Your task to perform on an android device: change the clock style Image 0: 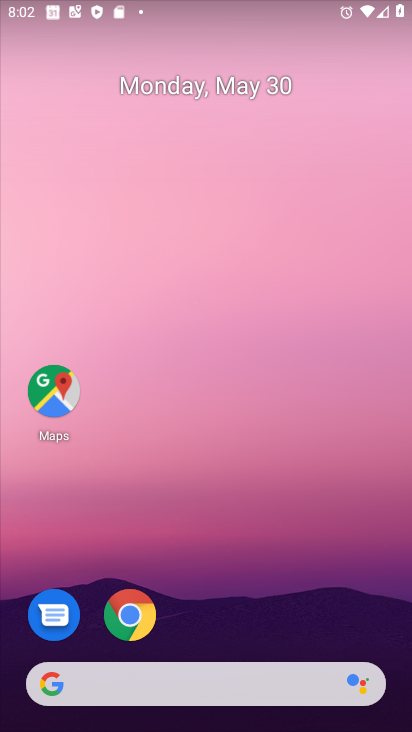
Step 0: drag from (267, 530) to (295, 7)
Your task to perform on an android device: change the clock style Image 1: 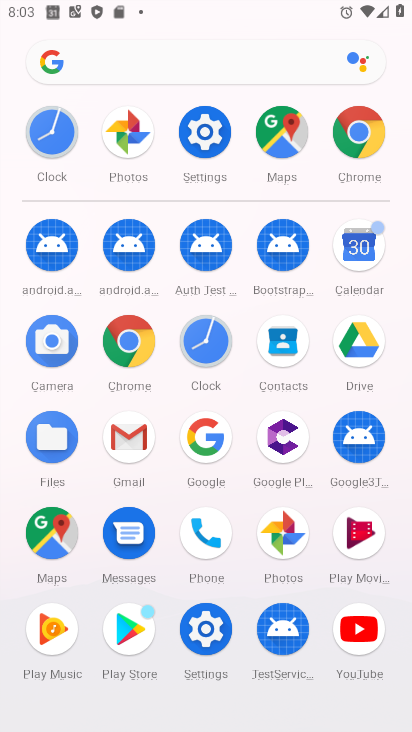
Step 1: click (37, 133)
Your task to perform on an android device: change the clock style Image 2: 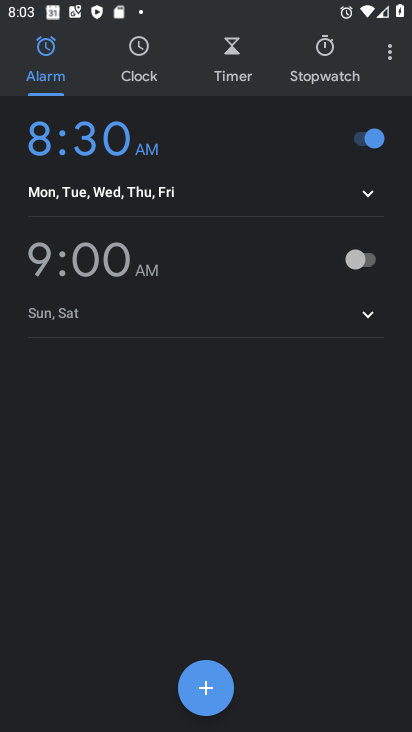
Step 2: click (389, 48)
Your task to perform on an android device: change the clock style Image 3: 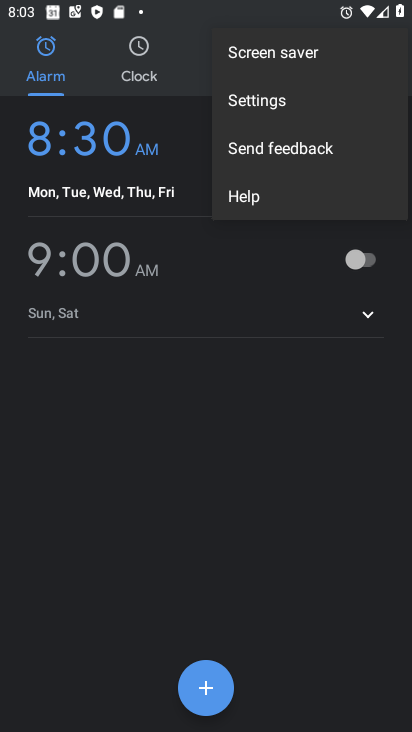
Step 3: click (280, 102)
Your task to perform on an android device: change the clock style Image 4: 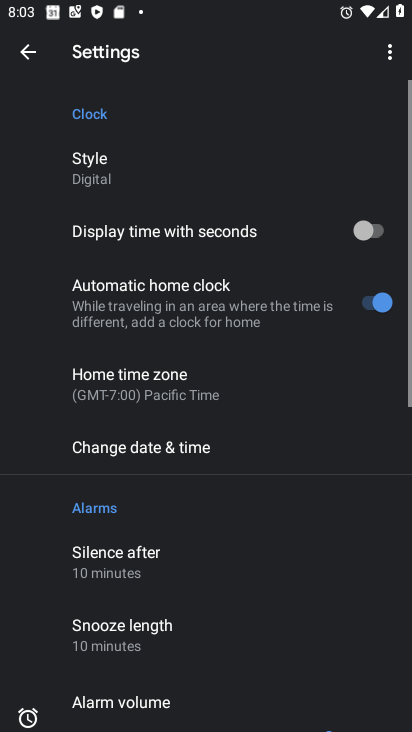
Step 4: click (85, 174)
Your task to perform on an android device: change the clock style Image 5: 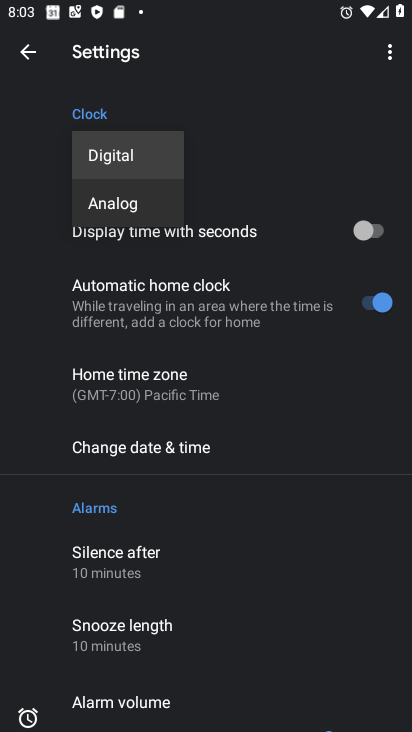
Step 5: click (105, 210)
Your task to perform on an android device: change the clock style Image 6: 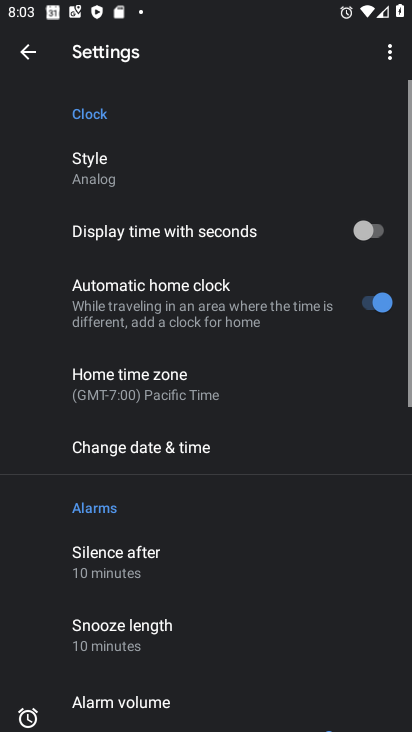
Step 6: task complete